Your task to perform on an android device: Go to Android settings Image 0: 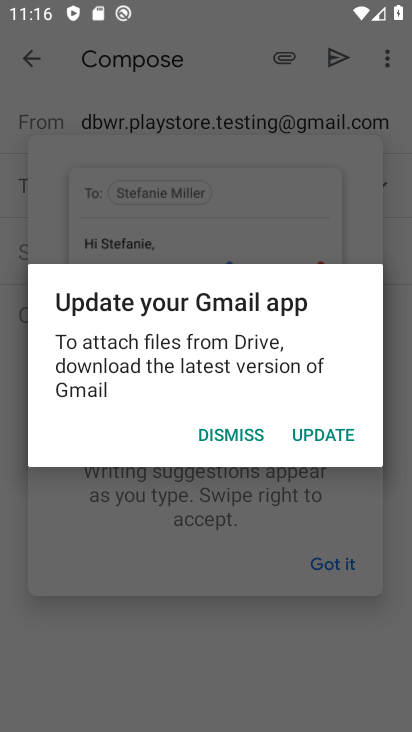
Step 0: press home button
Your task to perform on an android device: Go to Android settings Image 1: 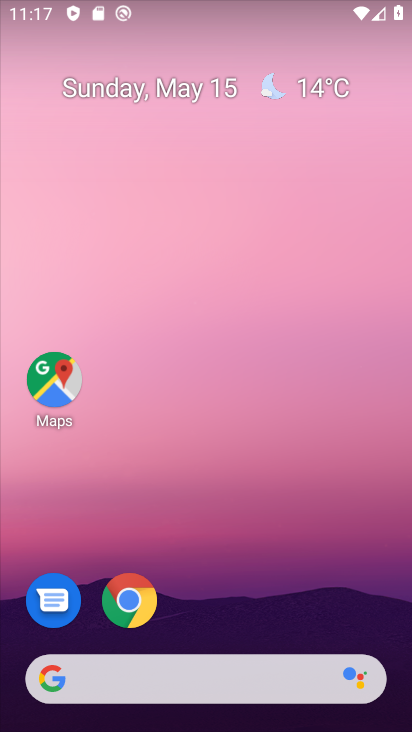
Step 1: drag from (396, 640) to (319, 50)
Your task to perform on an android device: Go to Android settings Image 2: 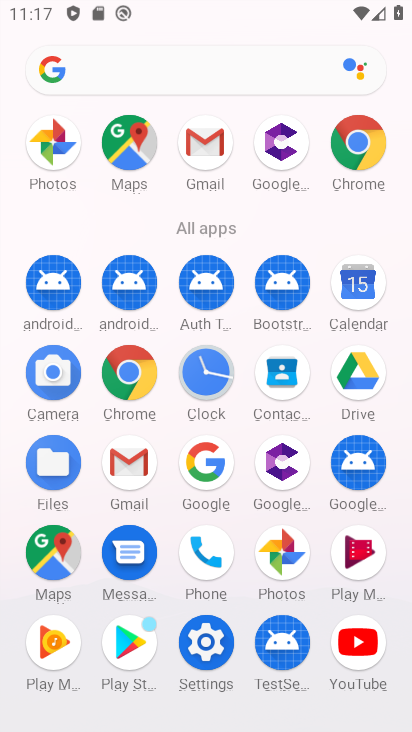
Step 2: click (202, 638)
Your task to perform on an android device: Go to Android settings Image 3: 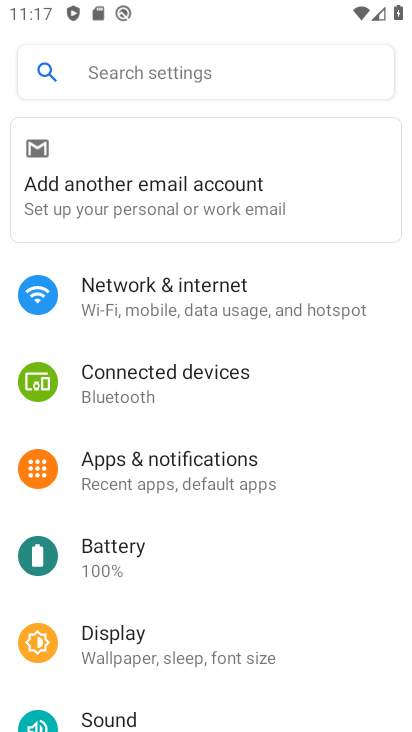
Step 3: drag from (328, 668) to (343, 180)
Your task to perform on an android device: Go to Android settings Image 4: 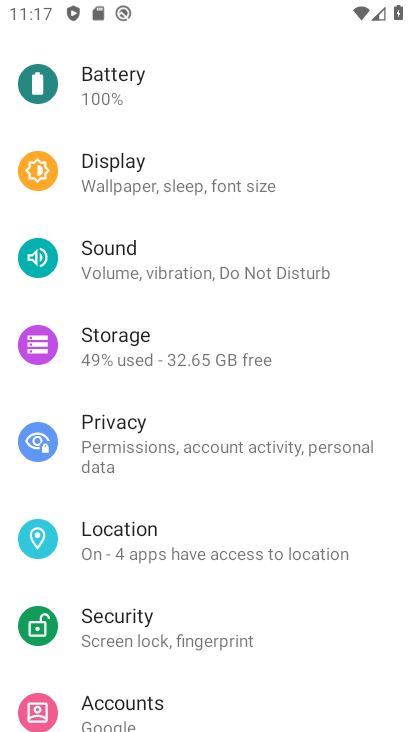
Step 4: drag from (317, 662) to (343, 154)
Your task to perform on an android device: Go to Android settings Image 5: 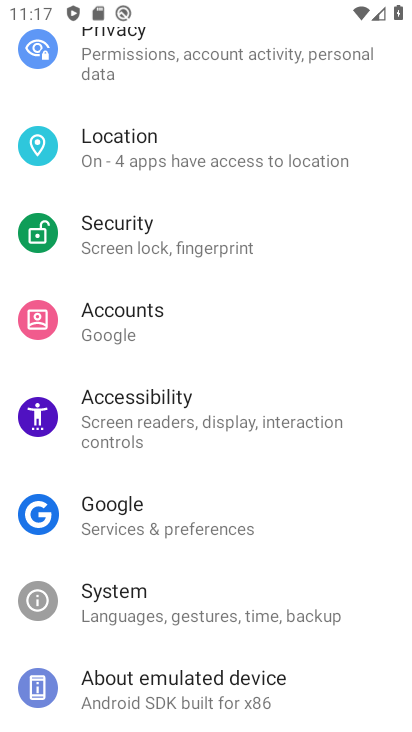
Step 5: drag from (307, 617) to (315, 263)
Your task to perform on an android device: Go to Android settings Image 6: 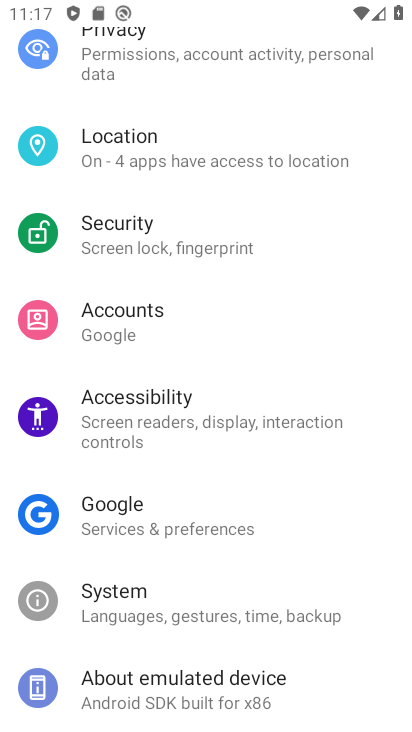
Step 6: click (131, 691)
Your task to perform on an android device: Go to Android settings Image 7: 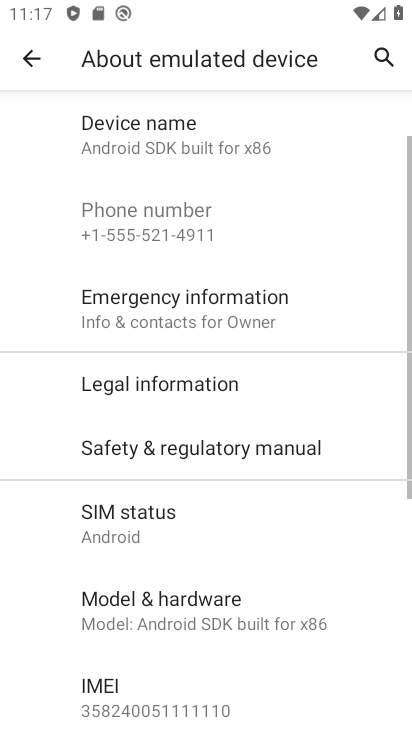
Step 7: task complete